Your task to perform on an android device: Go to Yahoo.com Image 0: 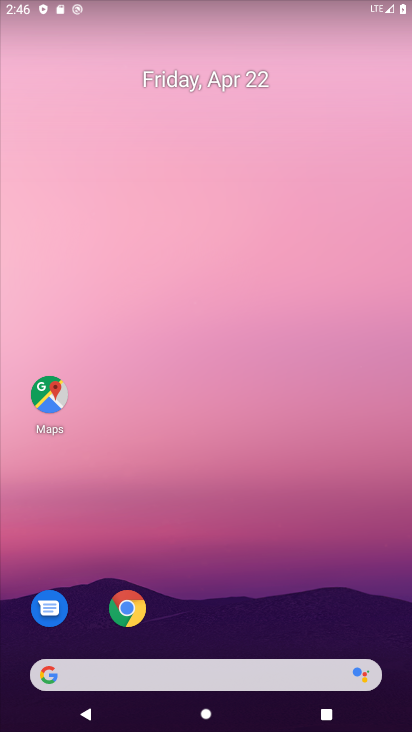
Step 0: drag from (251, 706) to (342, 77)
Your task to perform on an android device: Go to Yahoo.com Image 1: 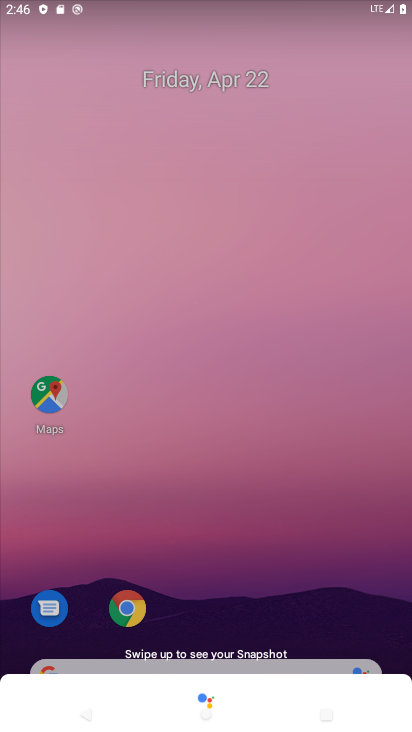
Step 1: click (249, 173)
Your task to perform on an android device: Go to Yahoo.com Image 2: 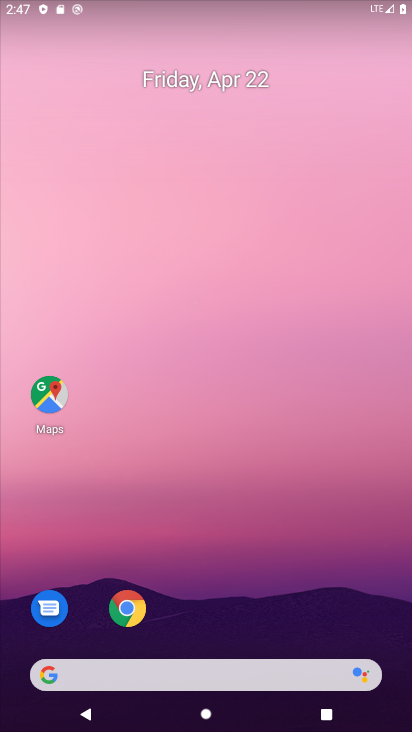
Step 2: drag from (268, 693) to (271, 246)
Your task to perform on an android device: Go to Yahoo.com Image 3: 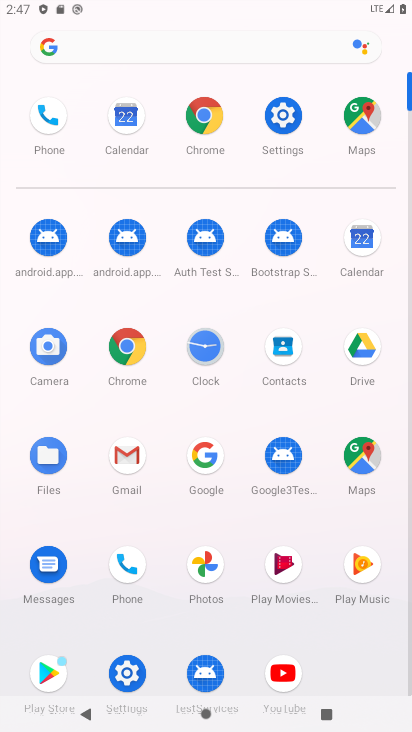
Step 3: click (195, 108)
Your task to perform on an android device: Go to Yahoo.com Image 4: 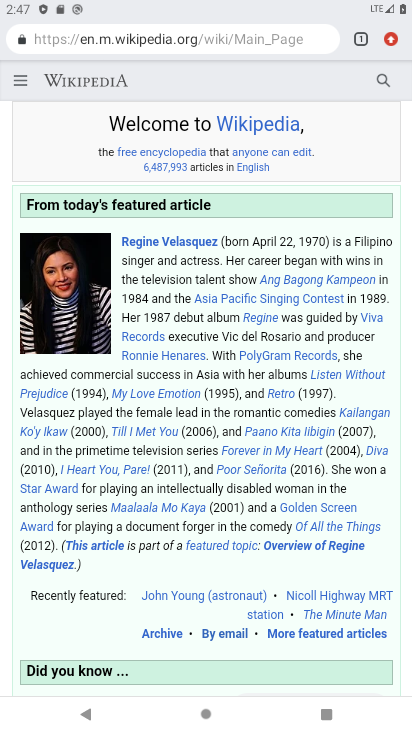
Step 4: click (185, 42)
Your task to perform on an android device: Go to Yahoo.com Image 5: 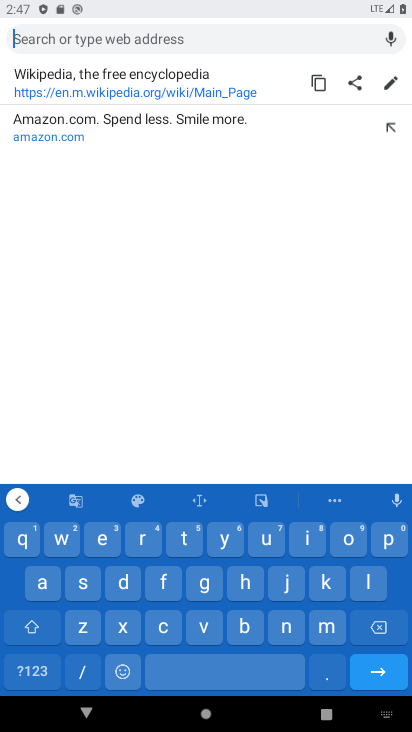
Step 5: click (219, 538)
Your task to perform on an android device: Go to Yahoo.com Image 6: 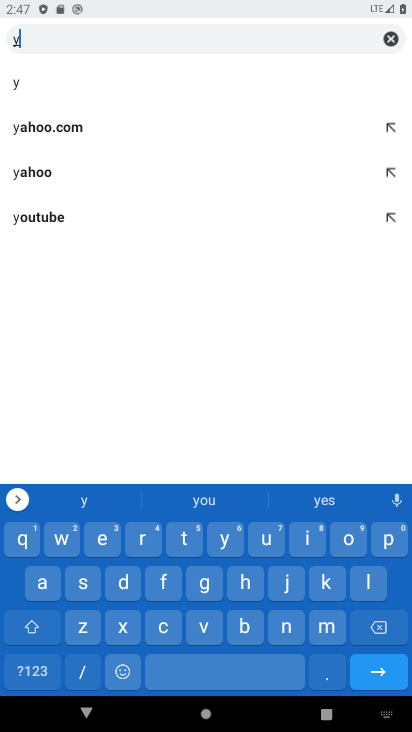
Step 6: click (80, 173)
Your task to perform on an android device: Go to Yahoo.com Image 7: 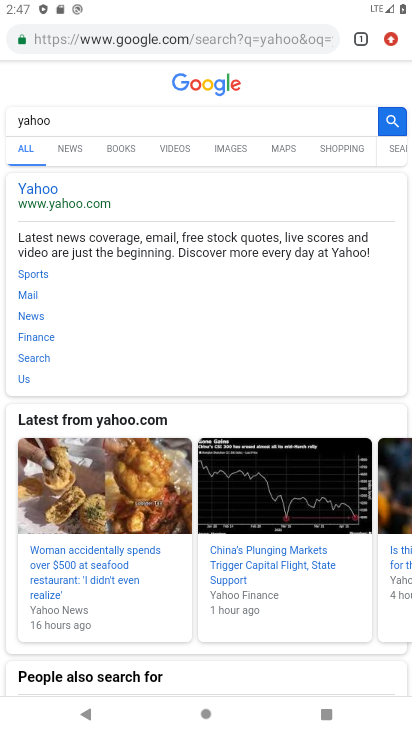
Step 7: click (27, 198)
Your task to perform on an android device: Go to Yahoo.com Image 8: 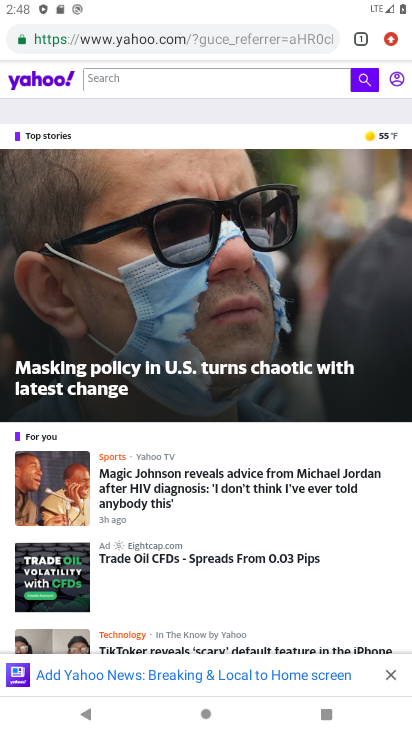
Step 8: task complete